Your task to perform on an android device: toggle wifi Image 0: 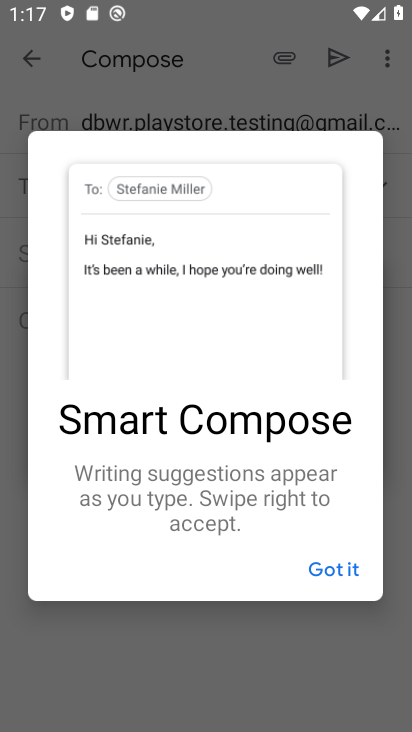
Step 0: press home button
Your task to perform on an android device: toggle wifi Image 1: 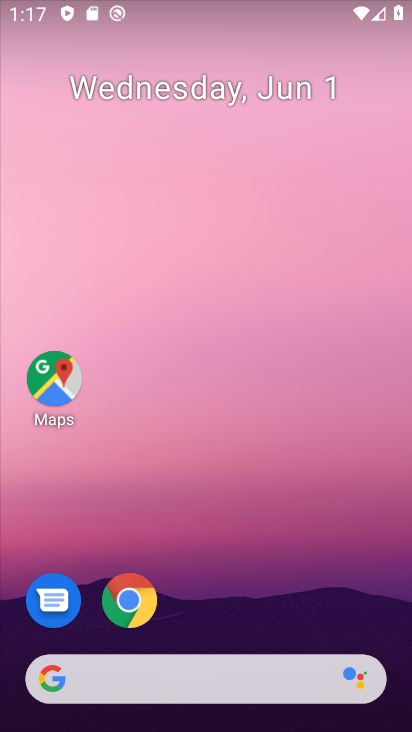
Step 1: drag from (226, 629) to (332, 159)
Your task to perform on an android device: toggle wifi Image 2: 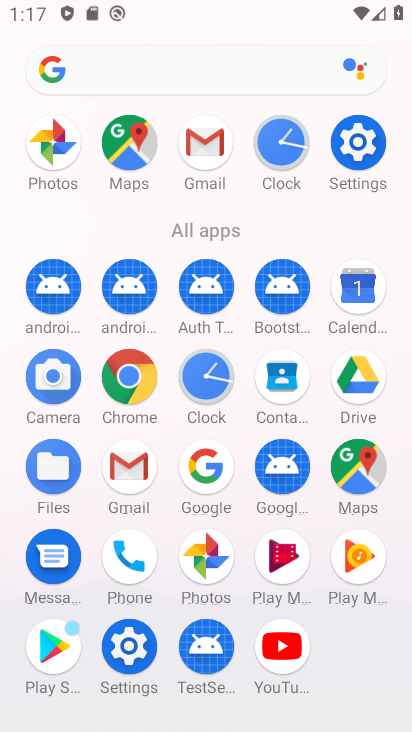
Step 2: click (111, 659)
Your task to perform on an android device: toggle wifi Image 3: 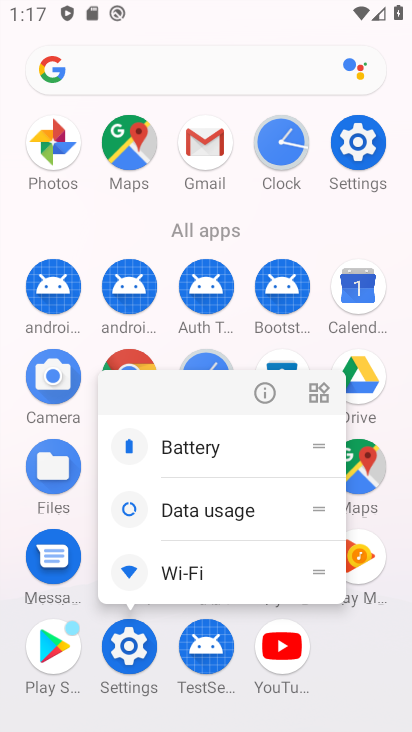
Step 3: click (135, 645)
Your task to perform on an android device: toggle wifi Image 4: 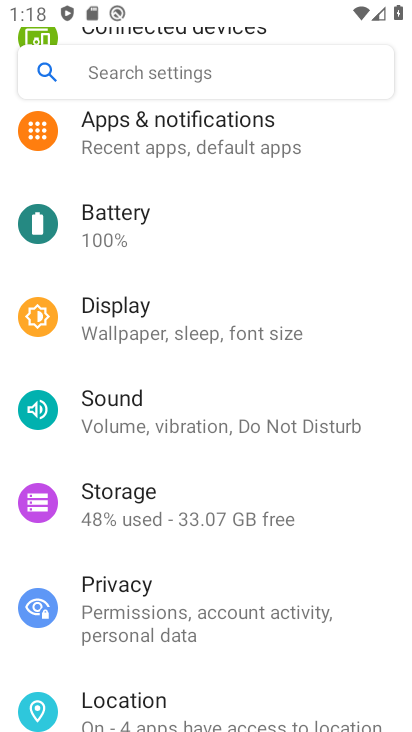
Step 4: drag from (250, 227) to (234, 700)
Your task to perform on an android device: toggle wifi Image 5: 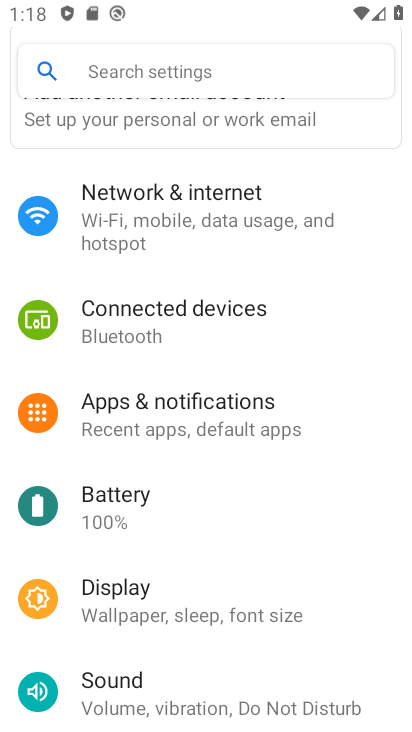
Step 5: click (255, 214)
Your task to perform on an android device: toggle wifi Image 6: 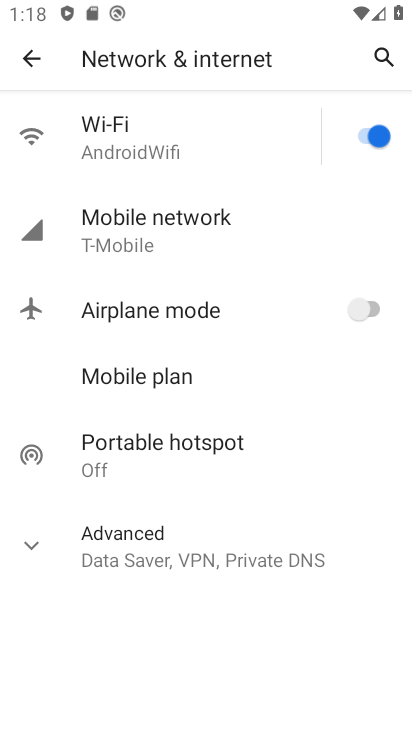
Step 6: click (360, 133)
Your task to perform on an android device: toggle wifi Image 7: 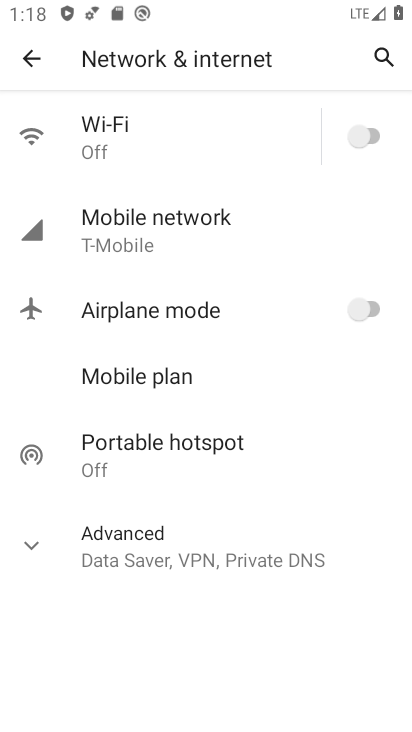
Step 7: task complete